Your task to perform on an android device: turn off sleep mode Image 0: 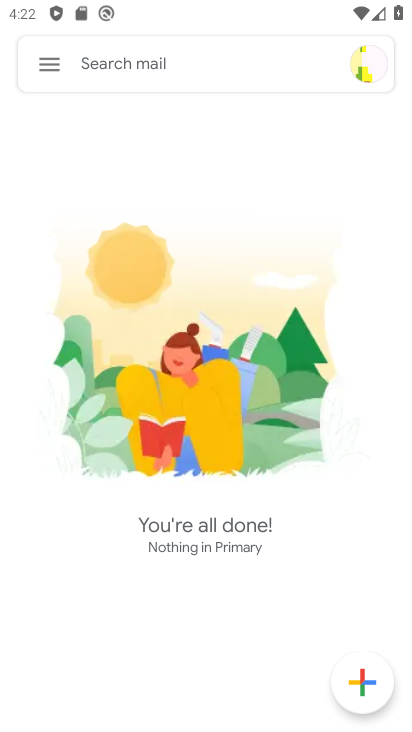
Step 0: press home button
Your task to perform on an android device: turn off sleep mode Image 1: 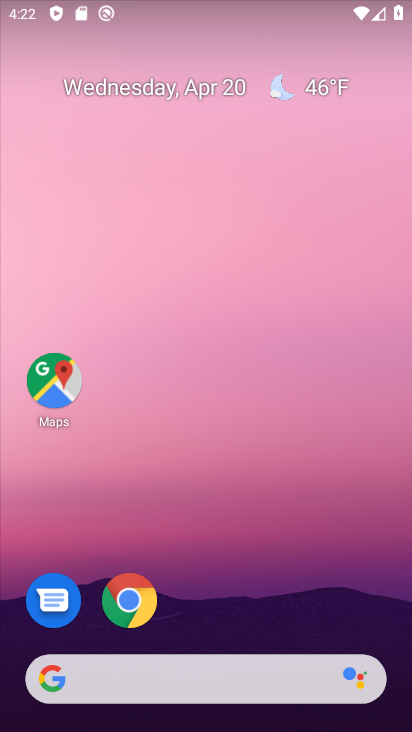
Step 1: drag from (220, 632) to (224, 156)
Your task to perform on an android device: turn off sleep mode Image 2: 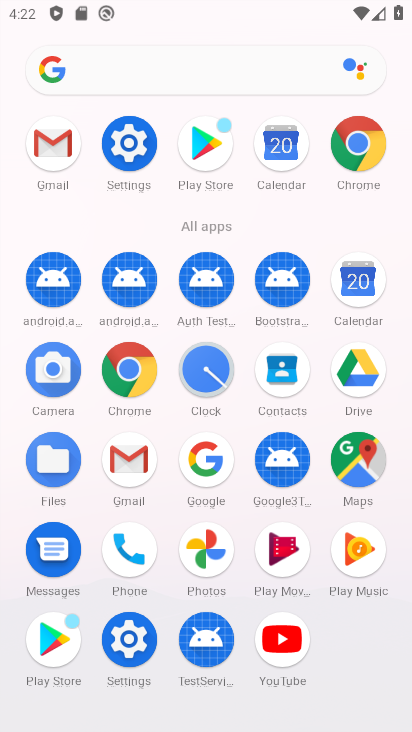
Step 2: click (125, 635)
Your task to perform on an android device: turn off sleep mode Image 3: 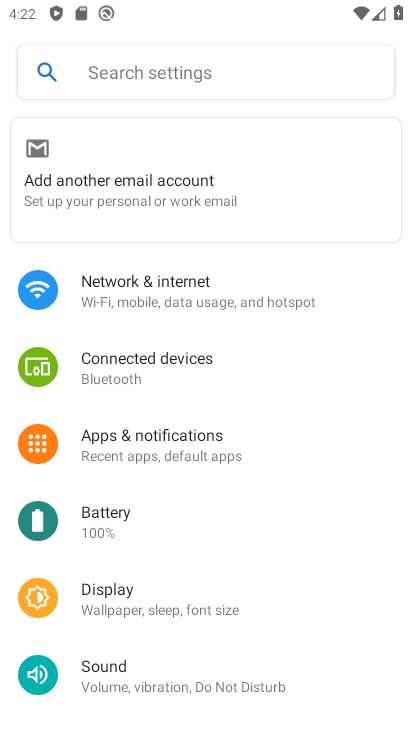
Step 3: click (138, 593)
Your task to perform on an android device: turn off sleep mode Image 4: 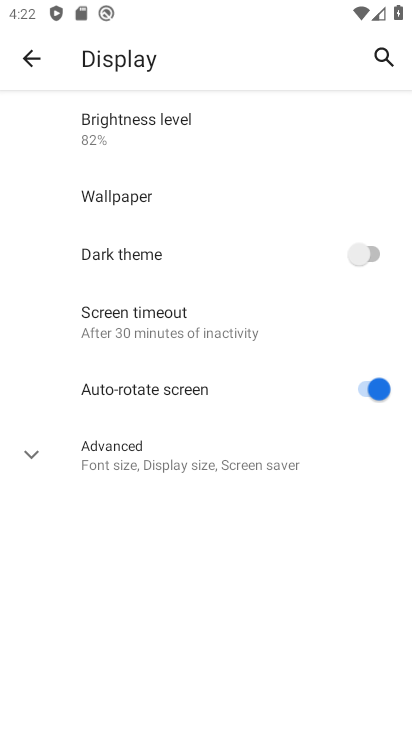
Step 4: click (32, 450)
Your task to perform on an android device: turn off sleep mode Image 5: 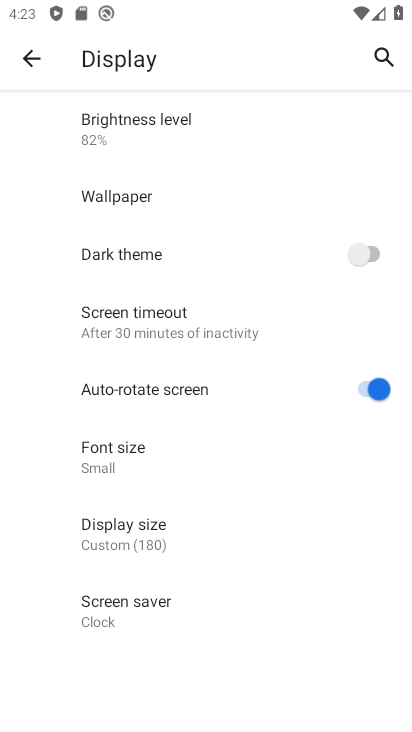
Step 5: task complete